Your task to perform on an android device: turn on wifi Image 0: 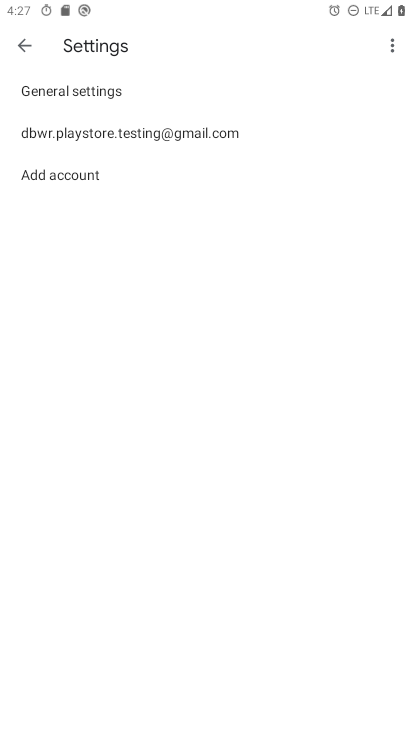
Step 0: press home button
Your task to perform on an android device: turn on wifi Image 1: 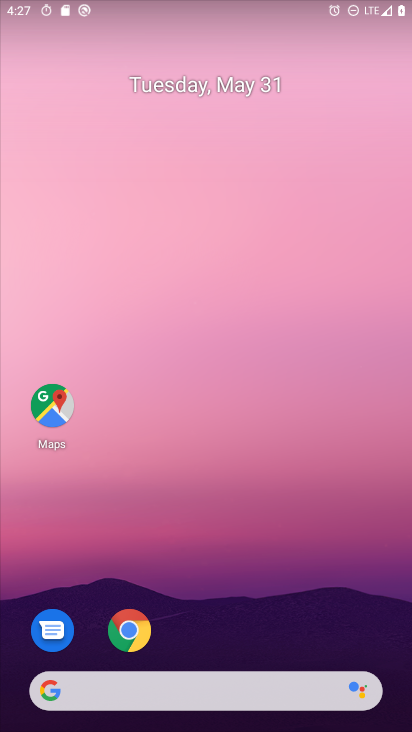
Step 1: drag from (211, 666) to (194, 8)
Your task to perform on an android device: turn on wifi Image 2: 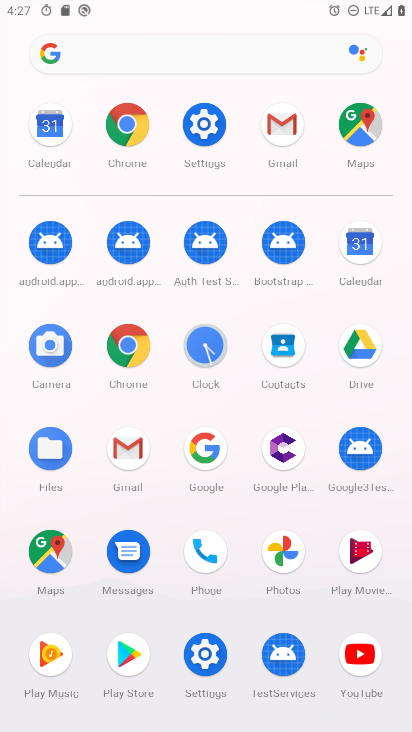
Step 2: click (209, 127)
Your task to perform on an android device: turn on wifi Image 3: 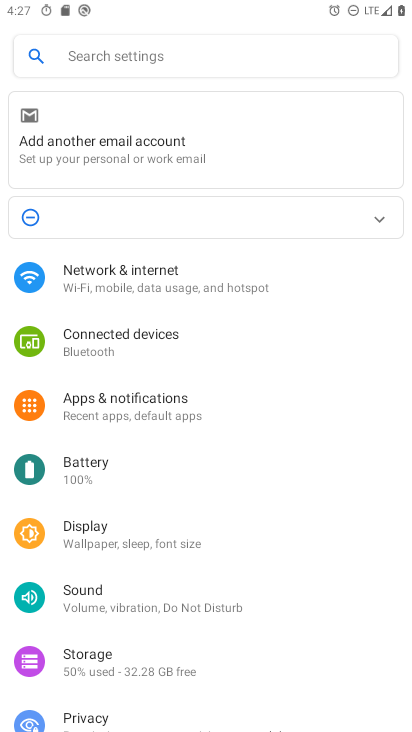
Step 3: click (139, 278)
Your task to perform on an android device: turn on wifi Image 4: 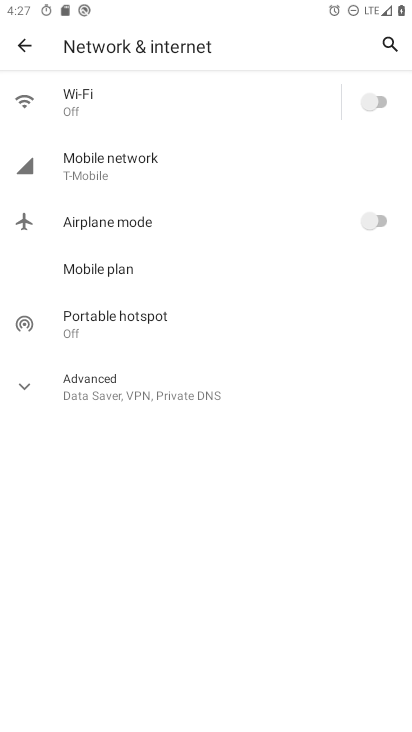
Step 4: click (378, 100)
Your task to perform on an android device: turn on wifi Image 5: 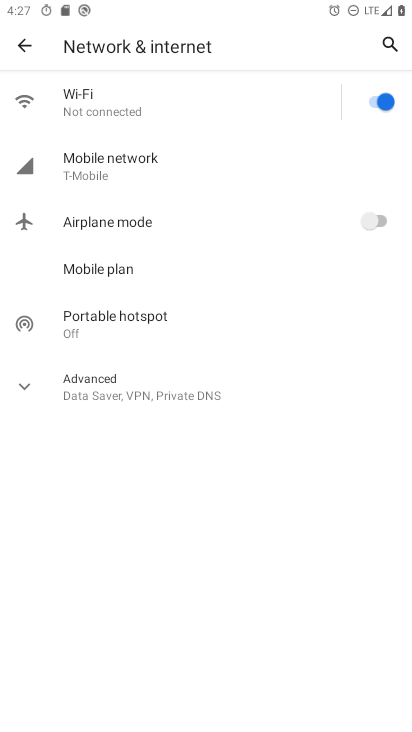
Step 5: task complete